Your task to perform on an android device: turn off location history Image 0: 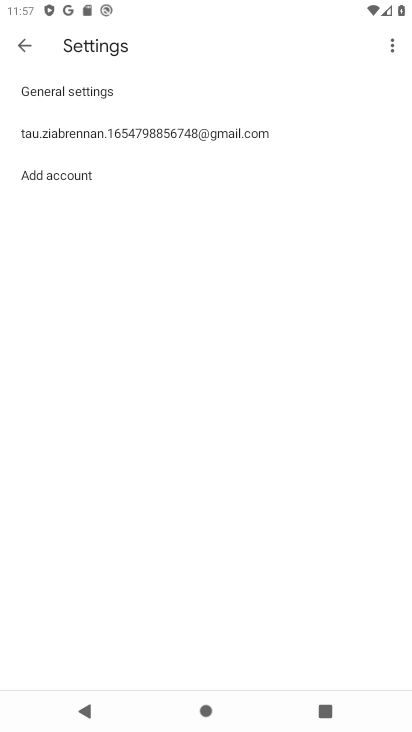
Step 0: press home button
Your task to perform on an android device: turn off location history Image 1: 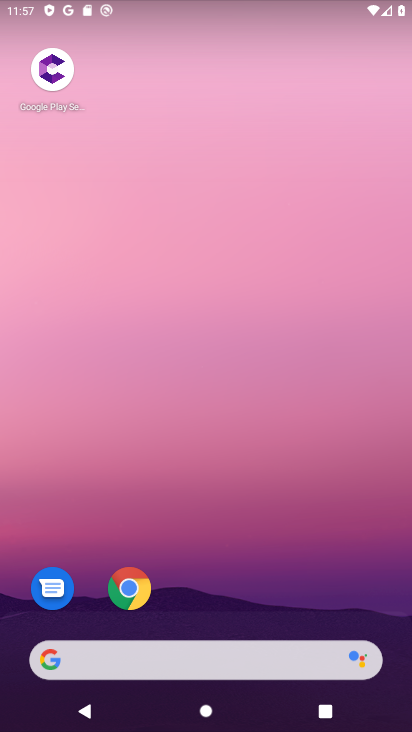
Step 1: drag from (273, 582) to (258, 10)
Your task to perform on an android device: turn off location history Image 2: 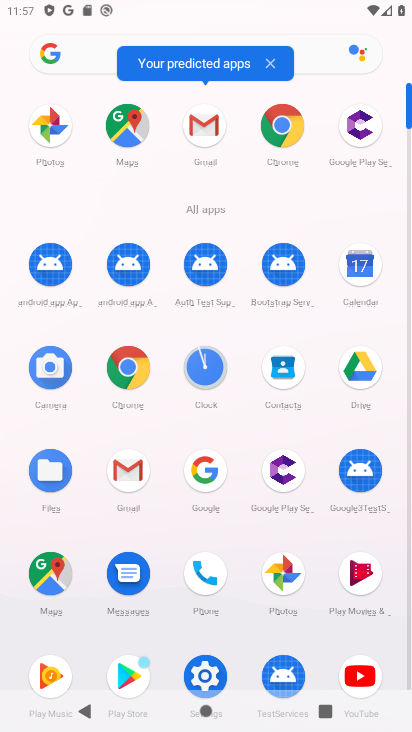
Step 2: click (210, 668)
Your task to perform on an android device: turn off location history Image 3: 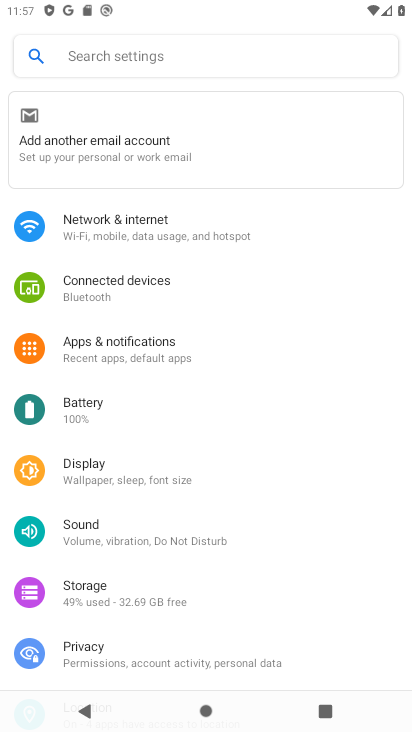
Step 3: drag from (207, 626) to (195, 351)
Your task to perform on an android device: turn off location history Image 4: 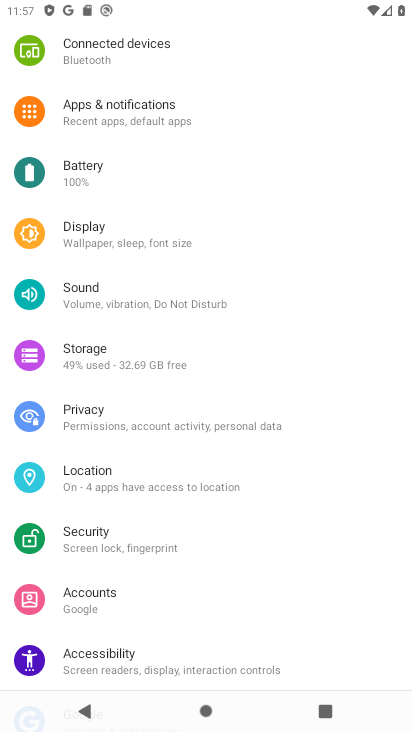
Step 4: click (116, 467)
Your task to perform on an android device: turn off location history Image 5: 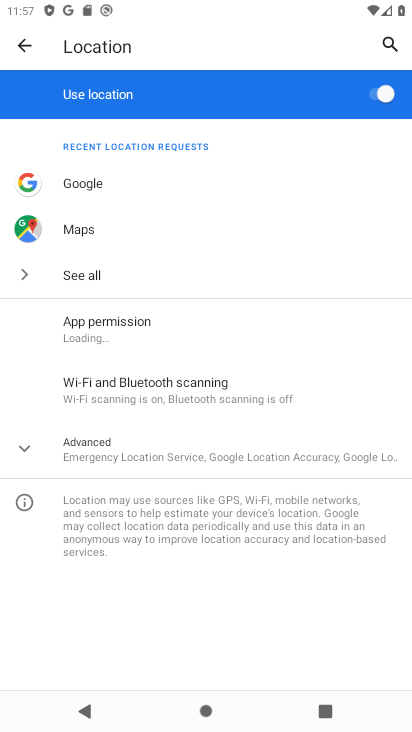
Step 5: click (145, 456)
Your task to perform on an android device: turn off location history Image 6: 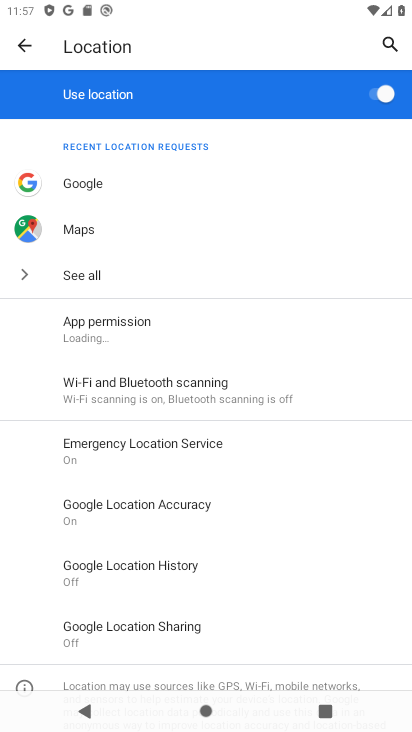
Step 6: click (126, 560)
Your task to perform on an android device: turn off location history Image 7: 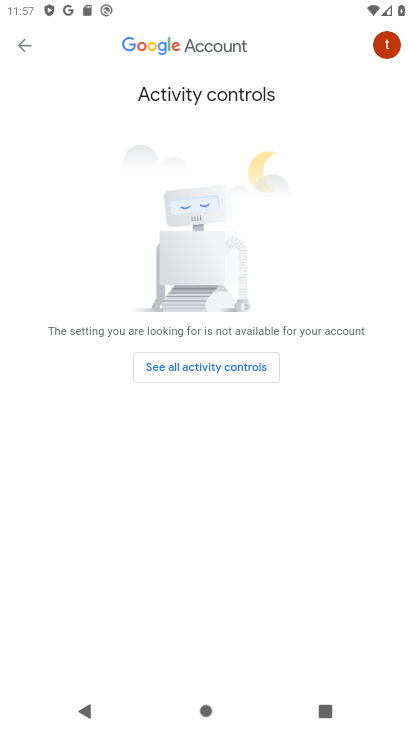
Step 7: click (219, 373)
Your task to perform on an android device: turn off location history Image 8: 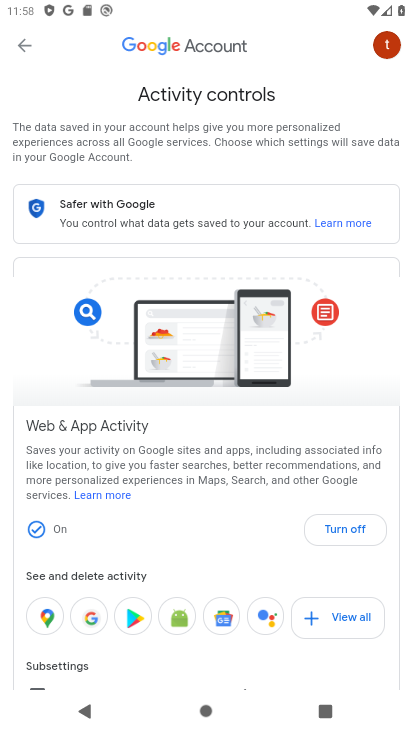
Step 8: click (336, 515)
Your task to perform on an android device: turn off location history Image 9: 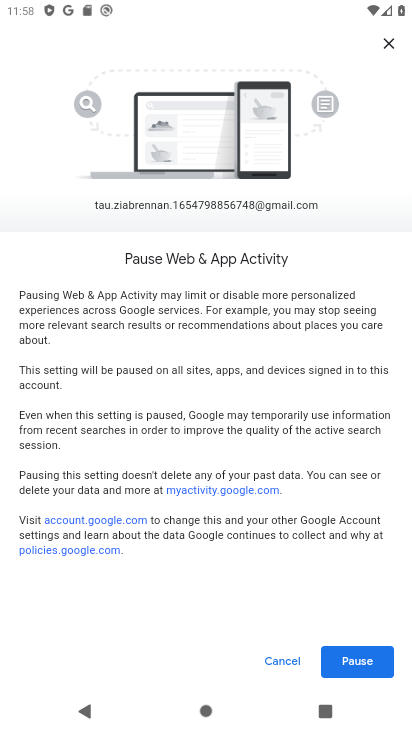
Step 9: click (344, 664)
Your task to perform on an android device: turn off location history Image 10: 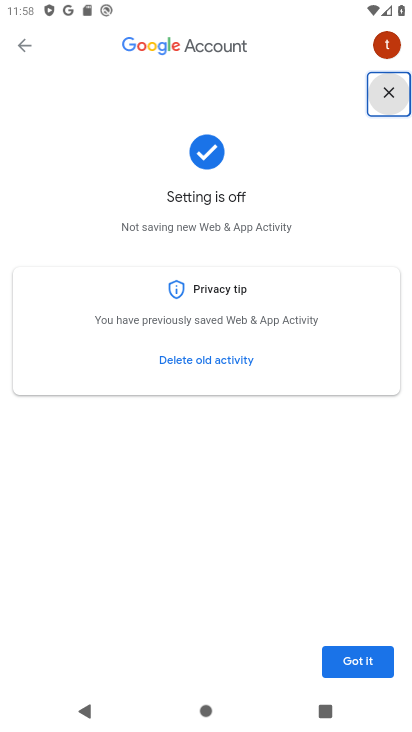
Step 10: click (344, 664)
Your task to perform on an android device: turn off location history Image 11: 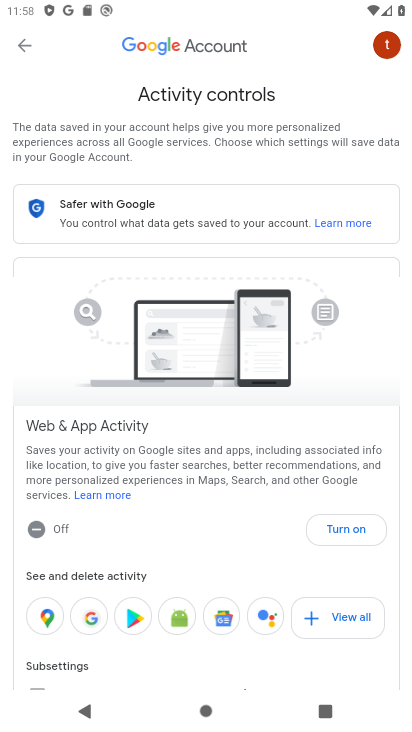
Step 11: task complete